Your task to perform on an android device: Go to ESPN.com Image 0: 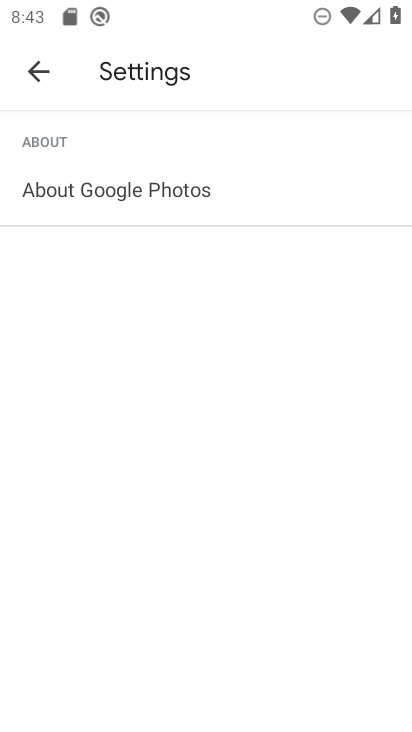
Step 0: click (42, 76)
Your task to perform on an android device: Go to ESPN.com Image 1: 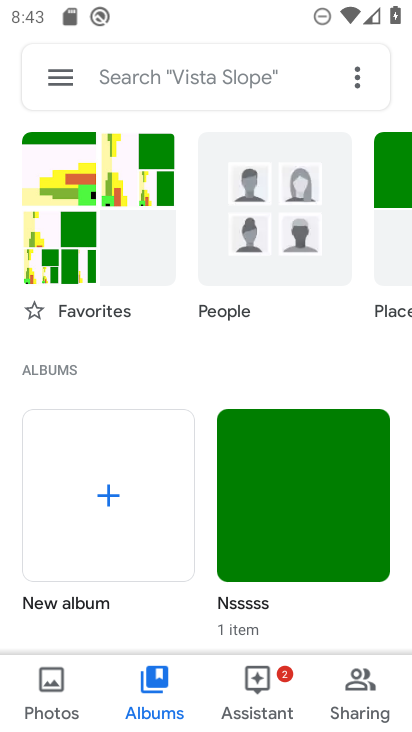
Step 1: press back button
Your task to perform on an android device: Go to ESPN.com Image 2: 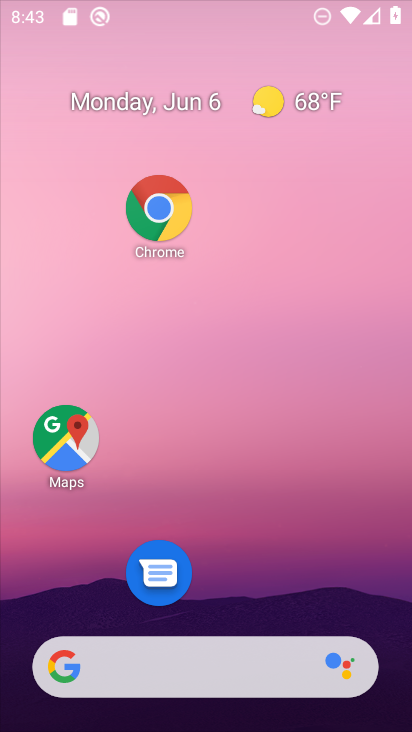
Step 2: drag from (270, 653) to (188, 102)
Your task to perform on an android device: Go to ESPN.com Image 3: 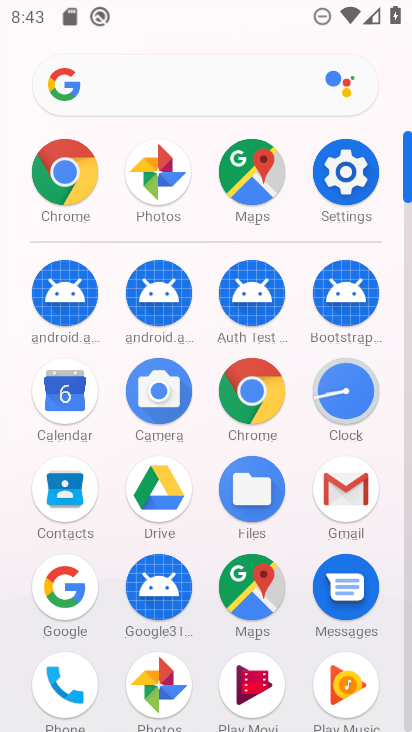
Step 3: click (235, 204)
Your task to perform on an android device: Go to ESPN.com Image 4: 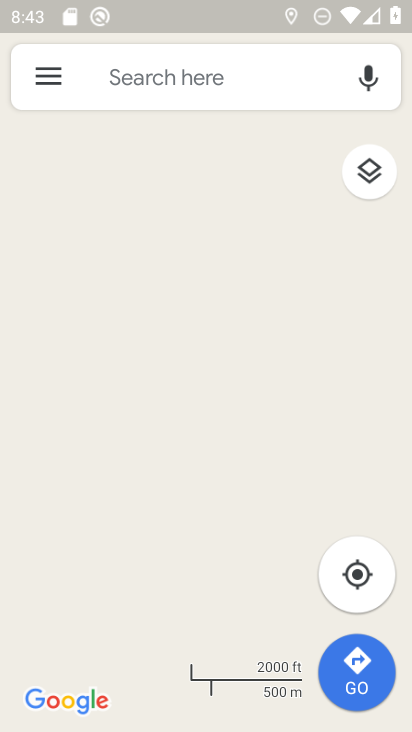
Step 4: press back button
Your task to perform on an android device: Go to ESPN.com Image 5: 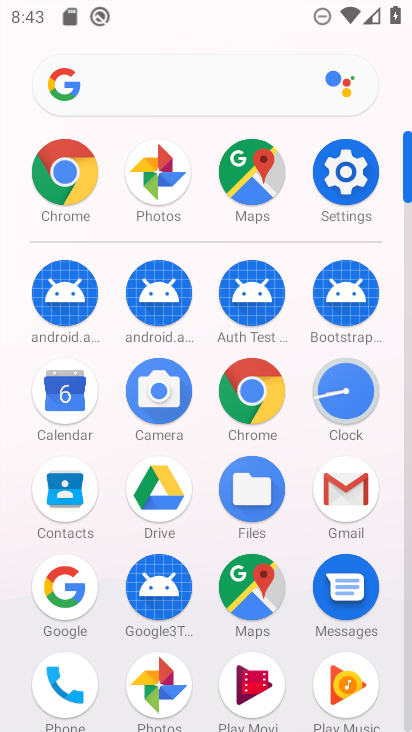
Step 5: click (80, 176)
Your task to perform on an android device: Go to ESPN.com Image 6: 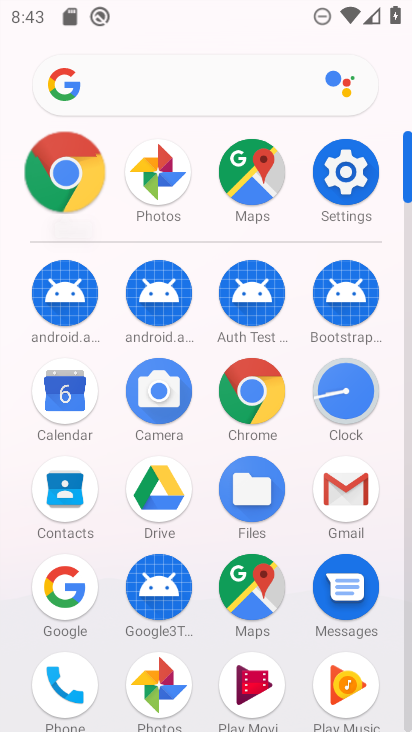
Step 6: click (79, 177)
Your task to perform on an android device: Go to ESPN.com Image 7: 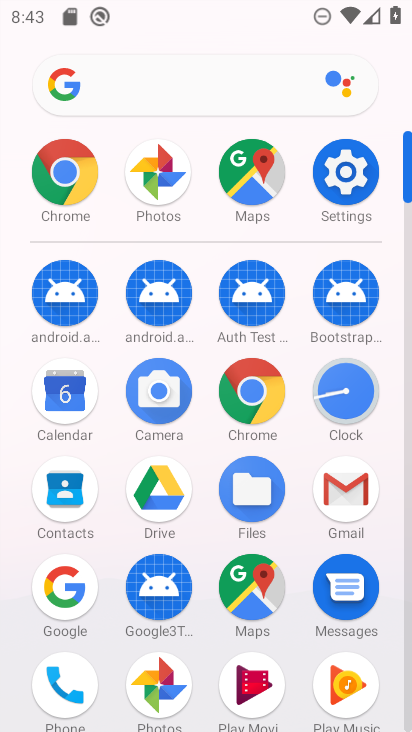
Step 7: click (83, 192)
Your task to perform on an android device: Go to ESPN.com Image 8: 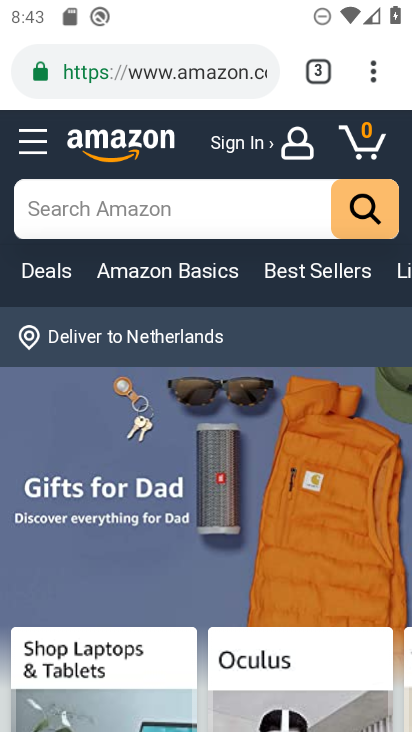
Step 8: drag from (372, 77) to (106, 141)
Your task to perform on an android device: Go to ESPN.com Image 9: 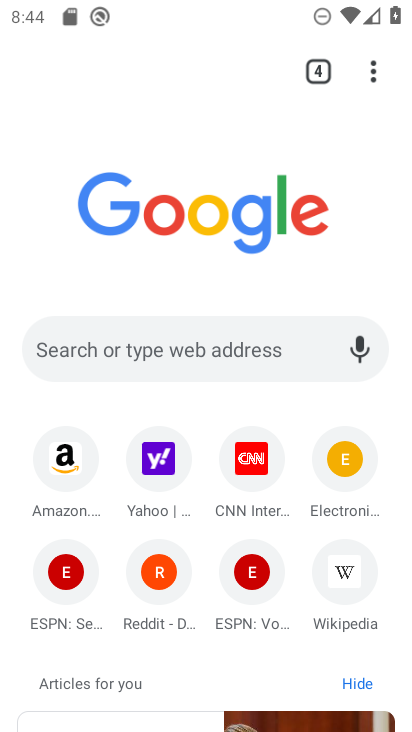
Step 9: click (38, 569)
Your task to perform on an android device: Go to ESPN.com Image 10: 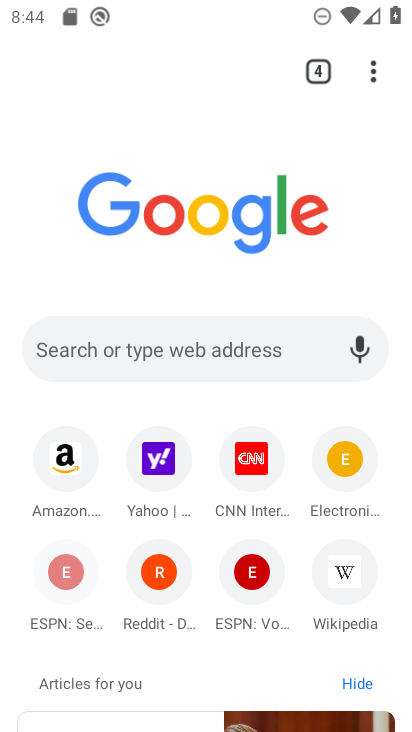
Step 10: click (45, 570)
Your task to perform on an android device: Go to ESPN.com Image 11: 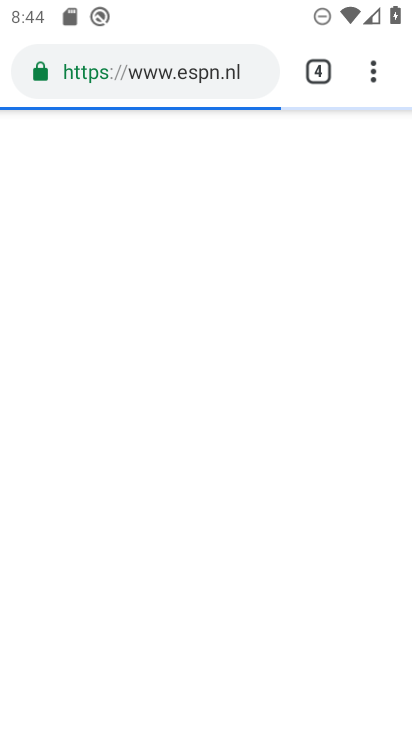
Step 11: task complete